Your task to perform on an android device: check storage Image 0: 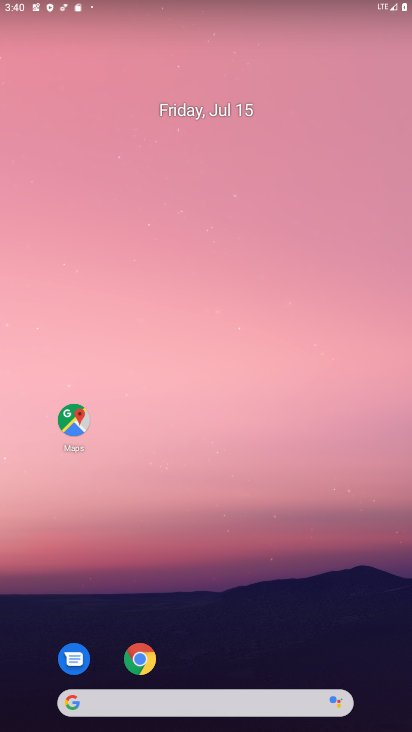
Step 0: click (258, 70)
Your task to perform on an android device: check storage Image 1: 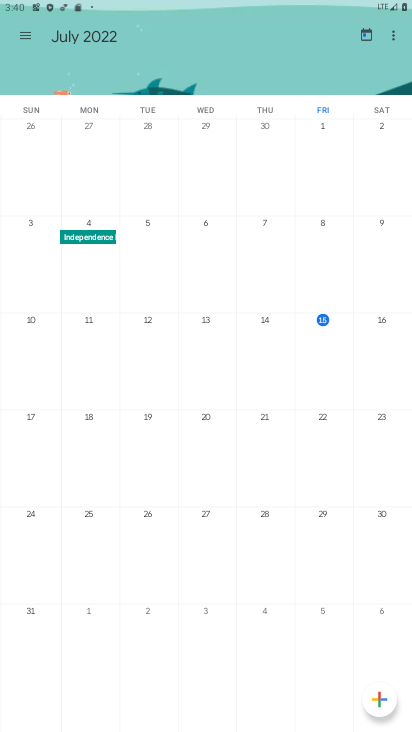
Step 1: press home button
Your task to perform on an android device: check storage Image 2: 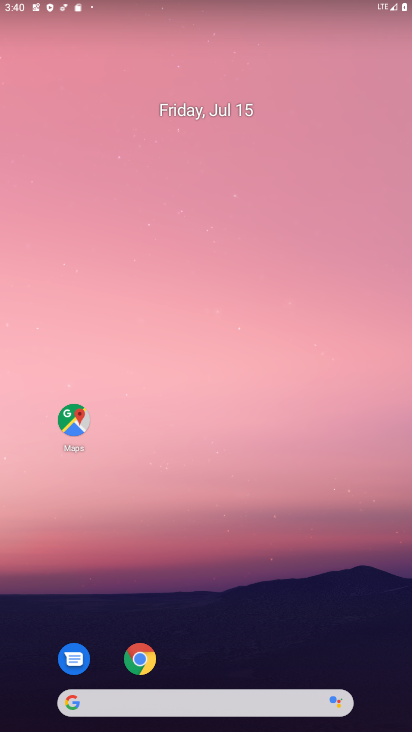
Step 2: drag from (185, 237) to (182, 190)
Your task to perform on an android device: check storage Image 3: 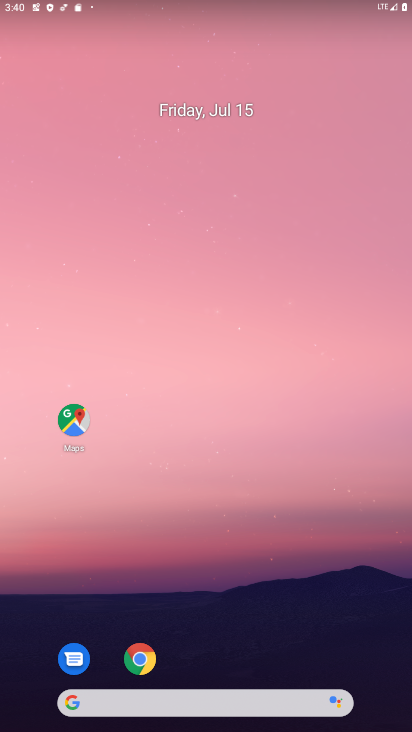
Step 3: drag from (201, 368) to (215, 44)
Your task to perform on an android device: check storage Image 4: 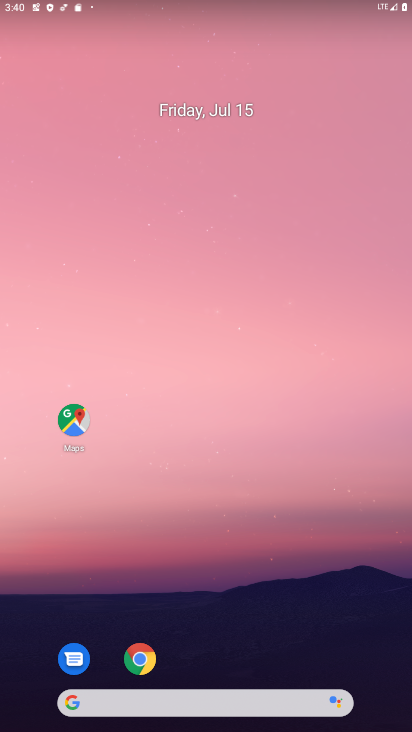
Step 4: drag from (205, 622) to (270, 18)
Your task to perform on an android device: check storage Image 5: 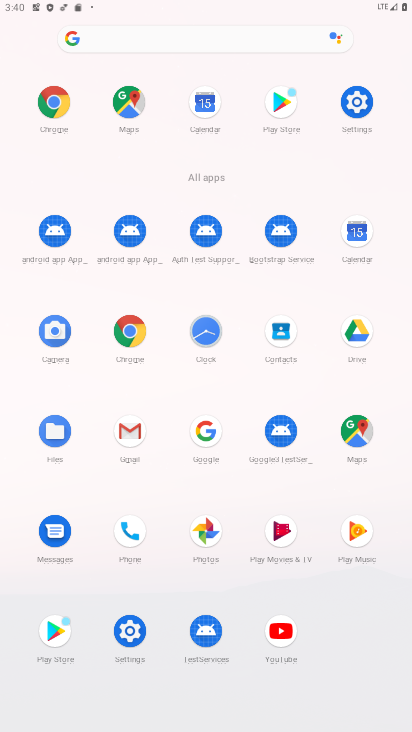
Step 5: click (359, 123)
Your task to perform on an android device: check storage Image 6: 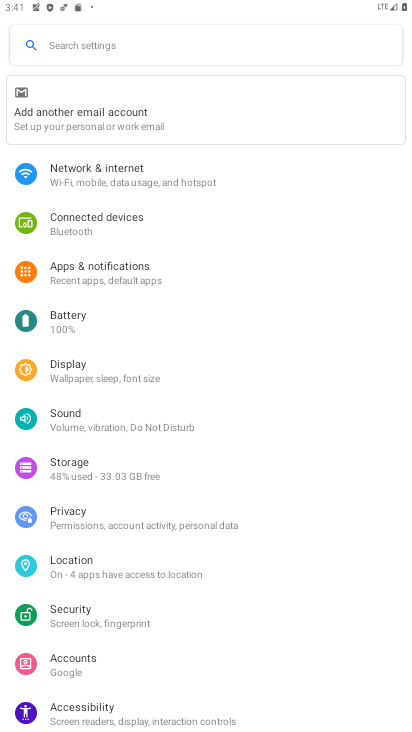
Step 6: click (83, 471)
Your task to perform on an android device: check storage Image 7: 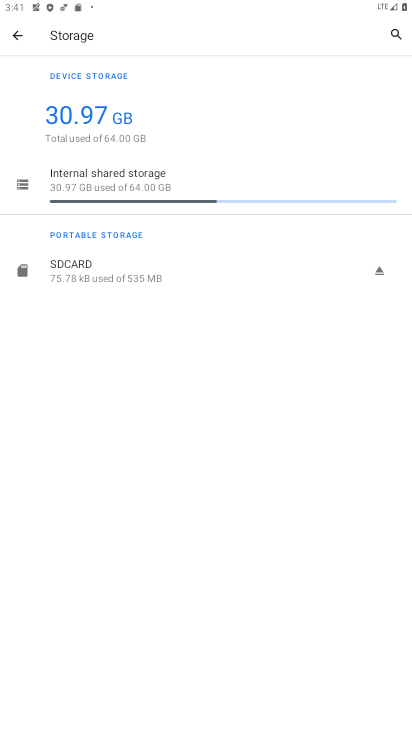
Step 7: task complete